Your task to perform on an android device: open app "HBO Max: Stream TV & Movies" (install if not already installed) Image 0: 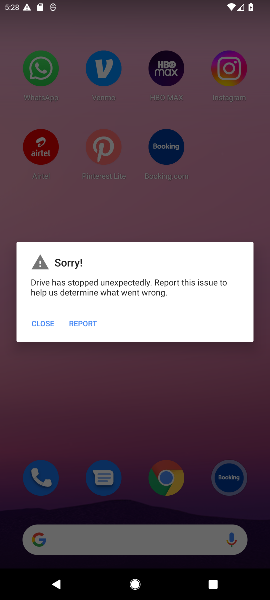
Step 0: press home button
Your task to perform on an android device: open app "HBO Max: Stream TV & Movies" (install if not already installed) Image 1: 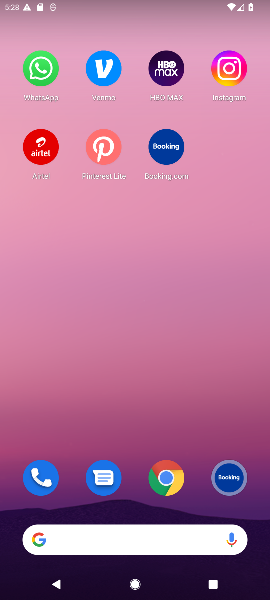
Step 1: drag from (128, 408) to (141, 0)
Your task to perform on an android device: open app "HBO Max: Stream TV & Movies" (install if not already installed) Image 2: 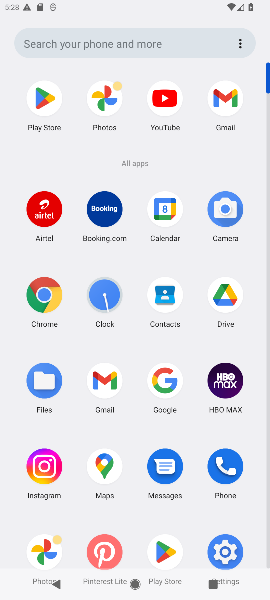
Step 2: click (47, 95)
Your task to perform on an android device: open app "HBO Max: Stream TV & Movies" (install if not already installed) Image 3: 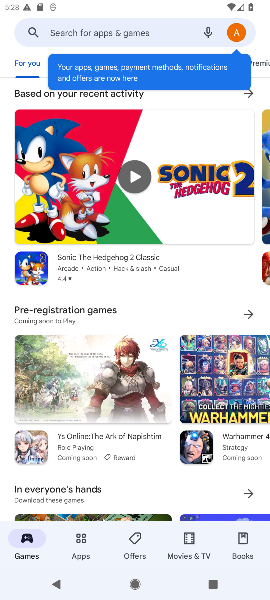
Step 3: click (87, 34)
Your task to perform on an android device: open app "HBO Max: Stream TV & Movies" (install if not already installed) Image 4: 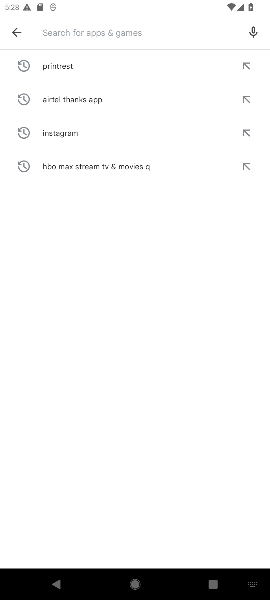
Step 4: click (130, 168)
Your task to perform on an android device: open app "HBO Max: Stream TV & Movies" (install if not already installed) Image 5: 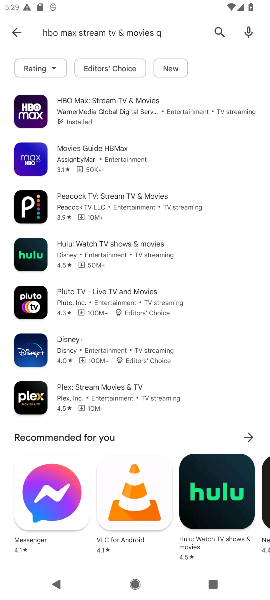
Step 5: click (122, 107)
Your task to perform on an android device: open app "HBO Max: Stream TV & Movies" (install if not already installed) Image 6: 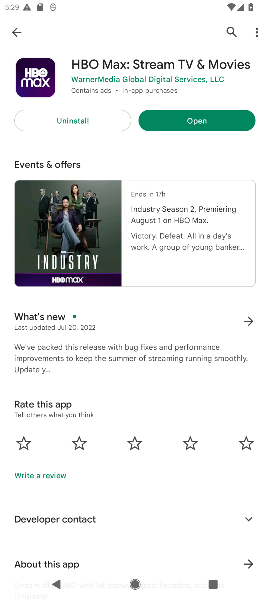
Step 6: click (171, 119)
Your task to perform on an android device: open app "HBO Max: Stream TV & Movies" (install if not already installed) Image 7: 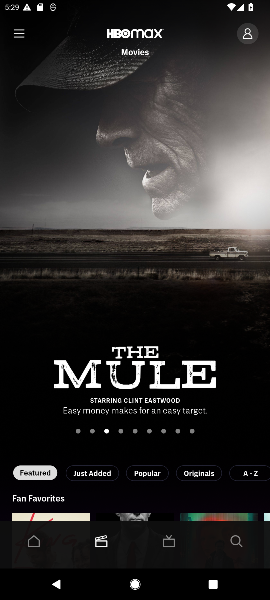
Step 7: task complete